Your task to perform on an android device: turn on bluetooth scan Image 0: 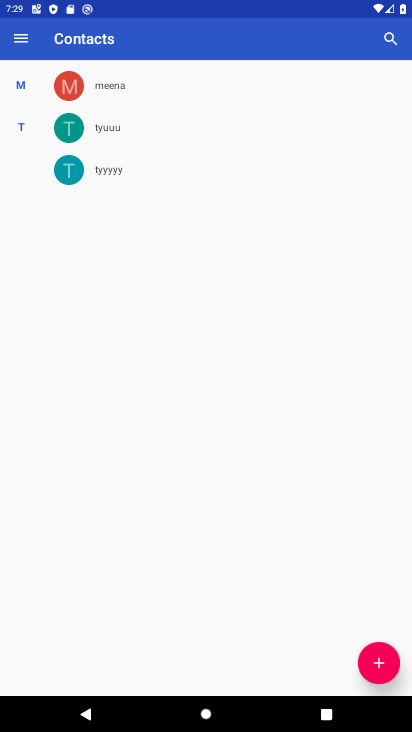
Step 0: press home button
Your task to perform on an android device: turn on bluetooth scan Image 1: 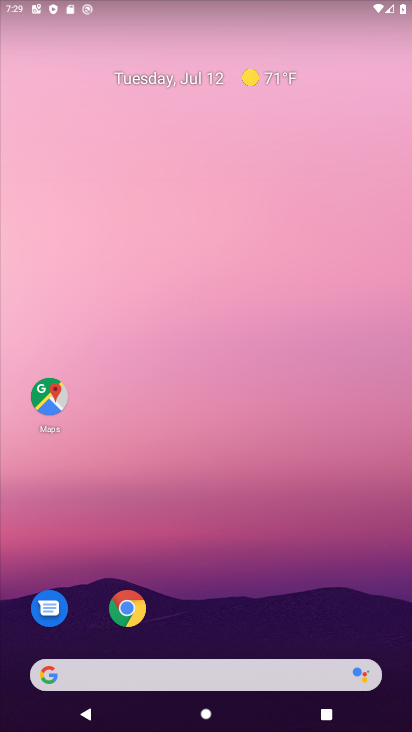
Step 1: drag from (214, 556) to (139, 133)
Your task to perform on an android device: turn on bluetooth scan Image 2: 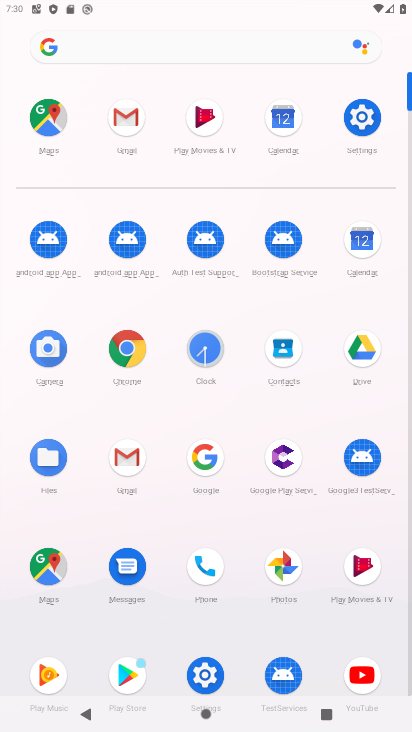
Step 2: click (206, 676)
Your task to perform on an android device: turn on bluetooth scan Image 3: 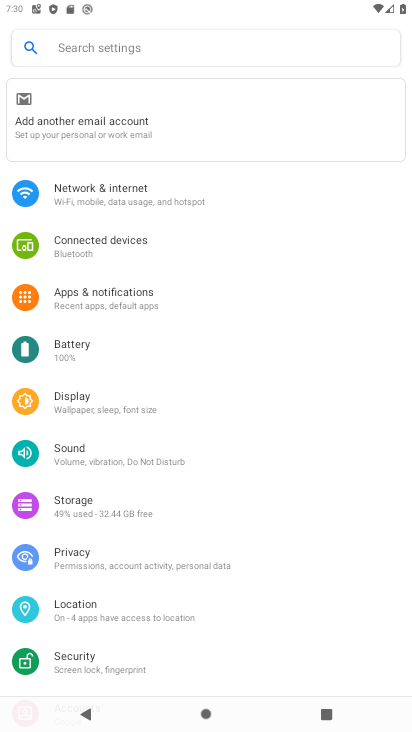
Step 3: click (79, 600)
Your task to perform on an android device: turn on bluetooth scan Image 4: 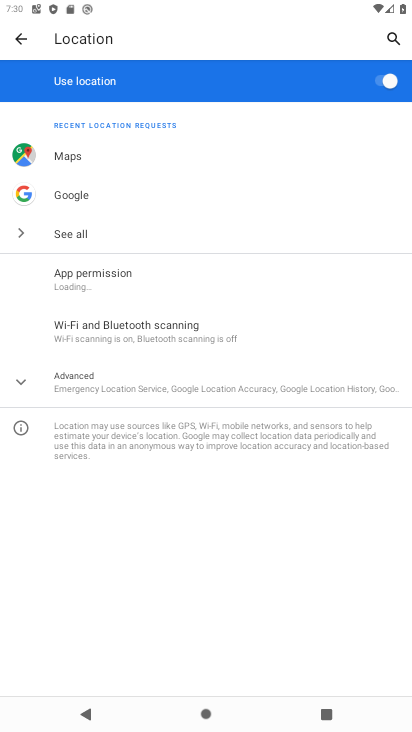
Step 4: click (47, 393)
Your task to perform on an android device: turn on bluetooth scan Image 5: 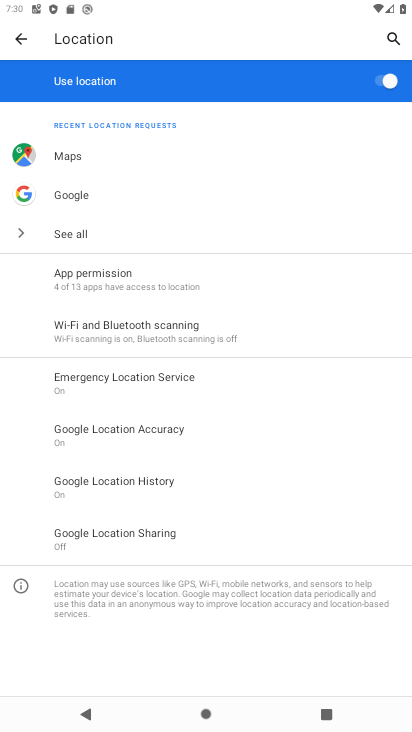
Step 5: click (118, 321)
Your task to perform on an android device: turn on bluetooth scan Image 6: 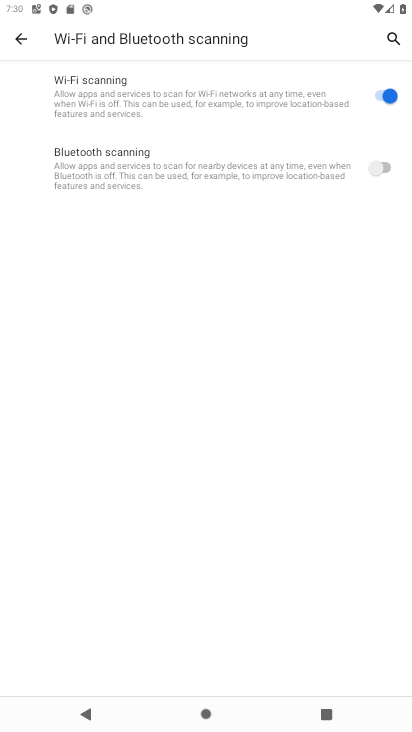
Step 6: click (382, 163)
Your task to perform on an android device: turn on bluetooth scan Image 7: 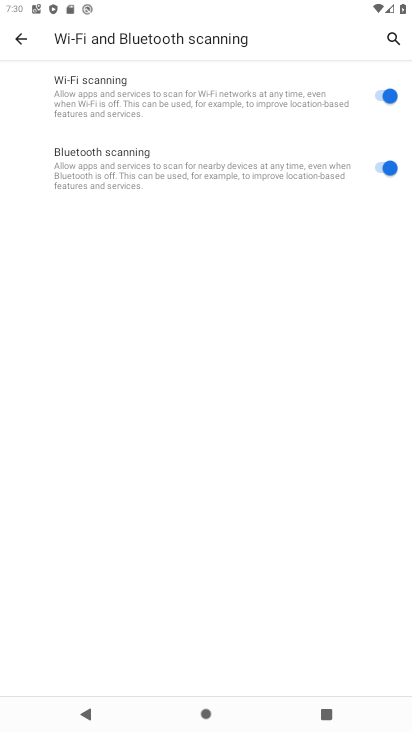
Step 7: task complete